Your task to perform on an android device: see creations saved in the google photos Image 0: 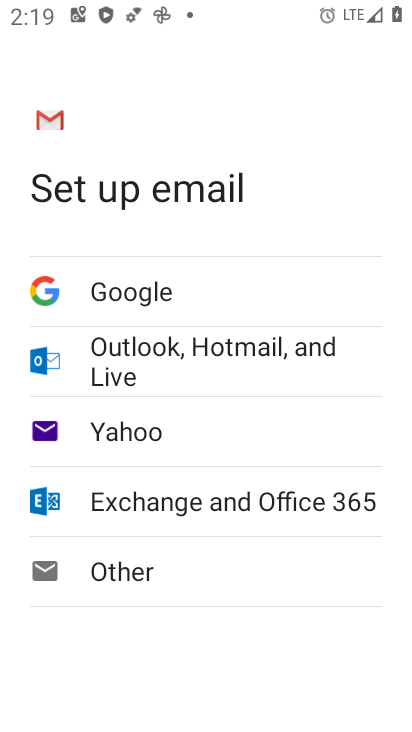
Step 0: press home button
Your task to perform on an android device: see creations saved in the google photos Image 1: 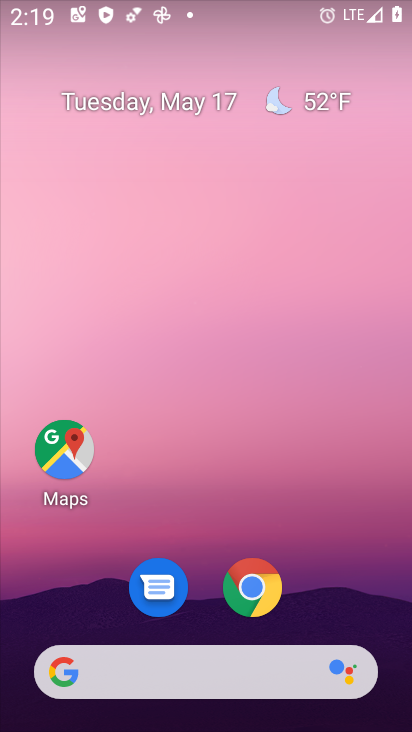
Step 1: drag from (344, 590) to (322, 109)
Your task to perform on an android device: see creations saved in the google photos Image 2: 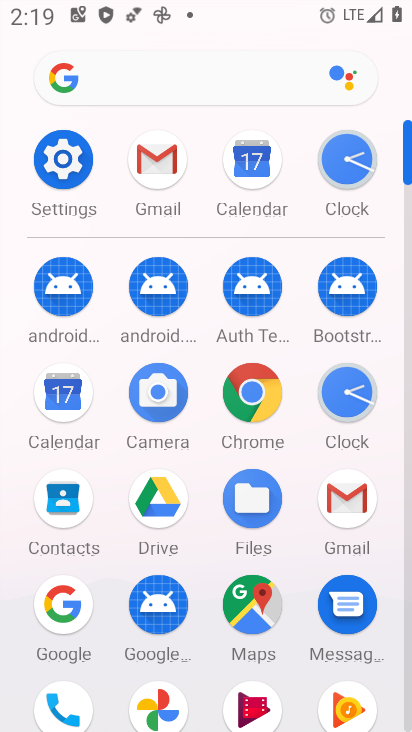
Step 2: click (160, 724)
Your task to perform on an android device: see creations saved in the google photos Image 3: 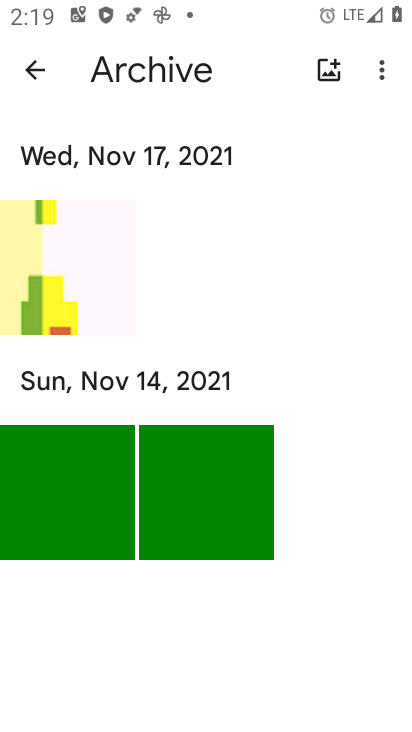
Step 3: task complete